Your task to perform on an android device: move an email to a new category in the gmail app Image 0: 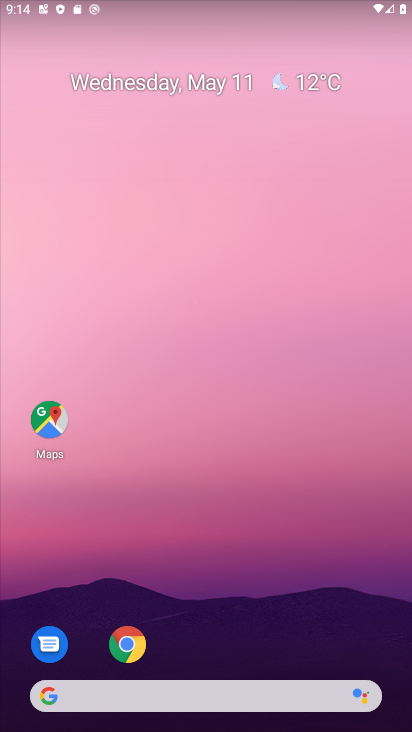
Step 0: drag from (189, 666) to (197, 318)
Your task to perform on an android device: move an email to a new category in the gmail app Image 1: 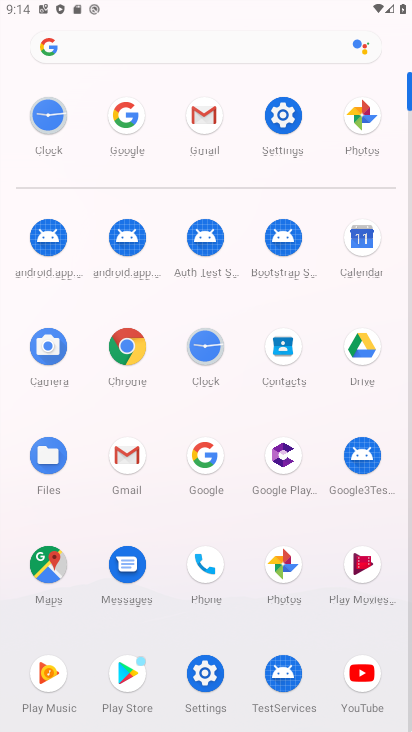
Step 1: click (210, 128)
Your task to perform on an android device: move an email to a new category in the gmail app Image 2: 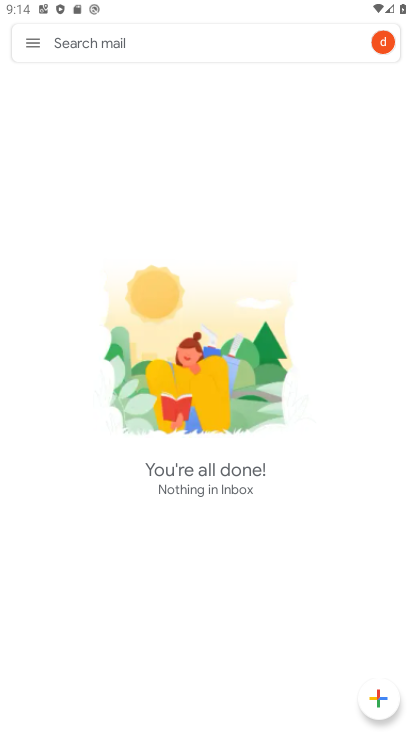
Step 2: click (30, 44)
Your task to perform on an android device: move an email to a new category in the gmail app Image 3: 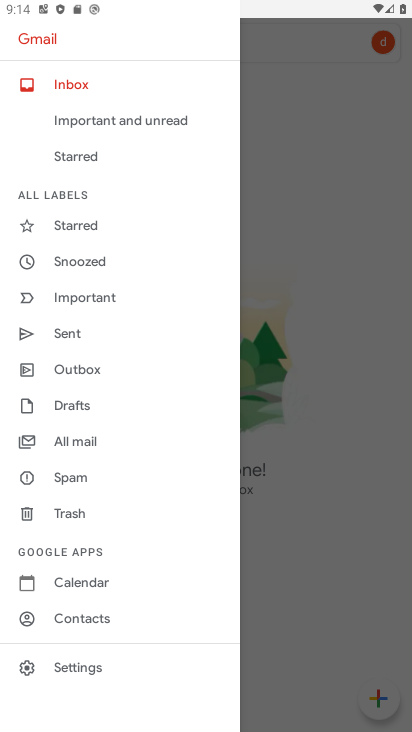
Step 3: click (59, 84)
Your task to perform on an android device: move an email to a new category in the gmail app Image 4: 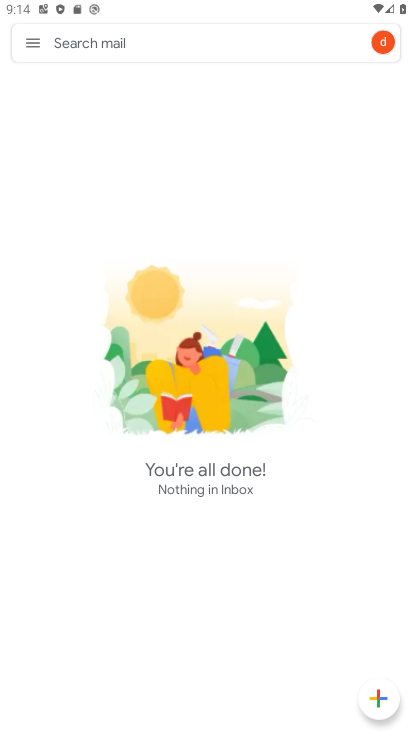
Step 4: click (270, 133)
Your task to perform on an android device: move an email to a new category in the gmail app Image 5: 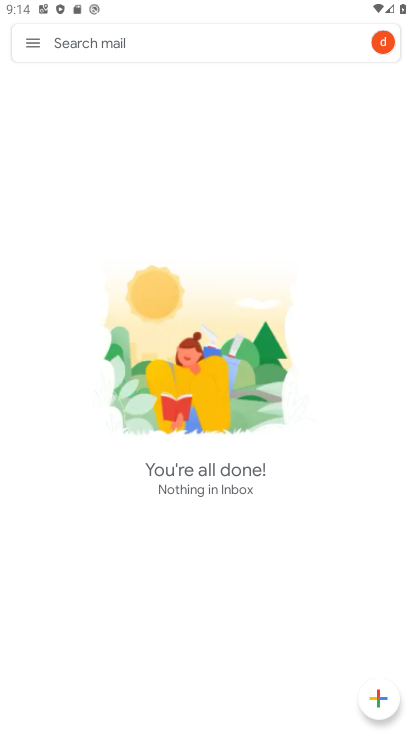
Step 5: task complete